Your task to perform on an android device: Open Google Chrome and click the shortcut for Amazon.com Image 0: 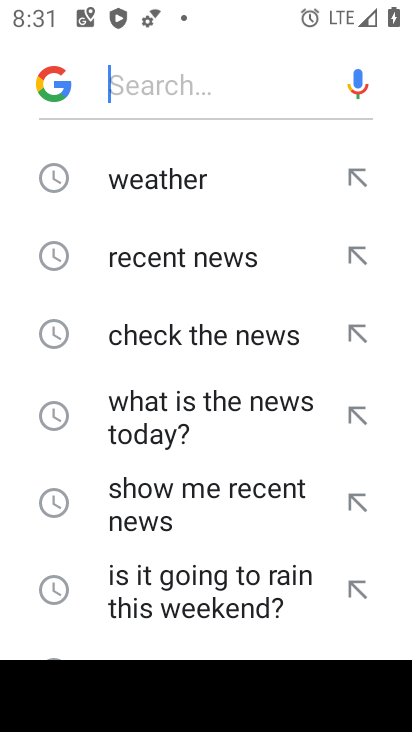
Step 0: press home button
Your task to perform on an android device: Open Google Chrome and click the shortcut for Amazon.com Image 1: 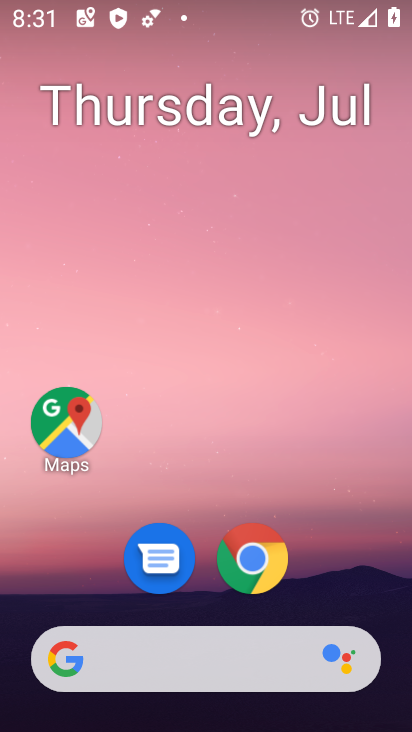
Step 1: drag from (194, 674) to (272, 149)
Your task to perform on an android device: Open Google Chrome and click the shortcut for Amazon.com Image 2: 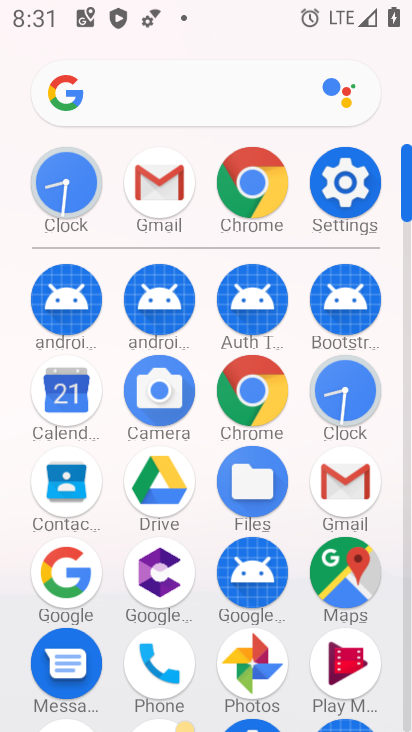
Step 2: click (250, 205)
Your task to perform on an android device: Open Google Chrome and click the shortcut for Amazon.com Image 3: 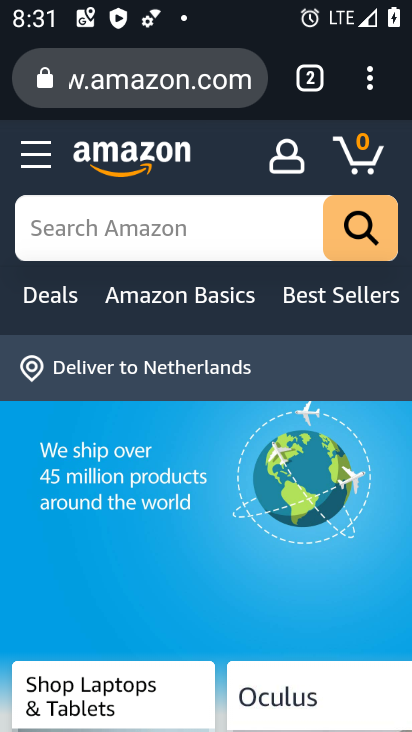
Step 3: drag from (312, 92) to (278, 299)
Your task to perform on an android device: Open Google Chrome and click the shortcut for Amazon.com Image 4: 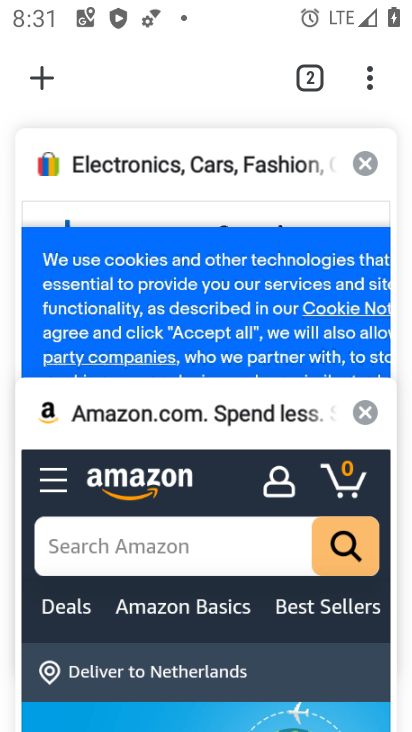
Step 4: click (49, 79)
Your task to perform on an android device: Open Google Chrome and click the shortcut for Amazon.com Image 5: 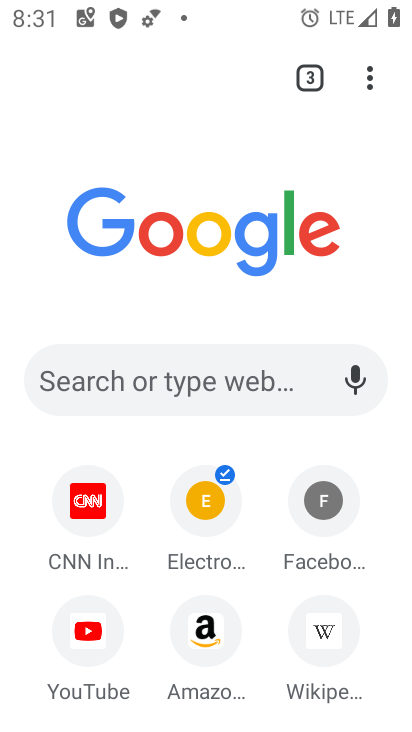
Step 5: click (195, 638)
Your task to perform on an android device: Open Google Chrome and click the shortcut for Amazon.com Image 6: 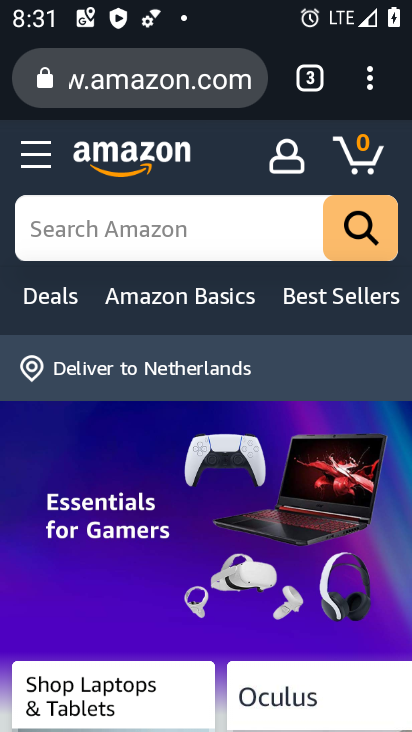
Step 6: task complete